Your task to perform on an android device: empty trash in google photos Image 0: 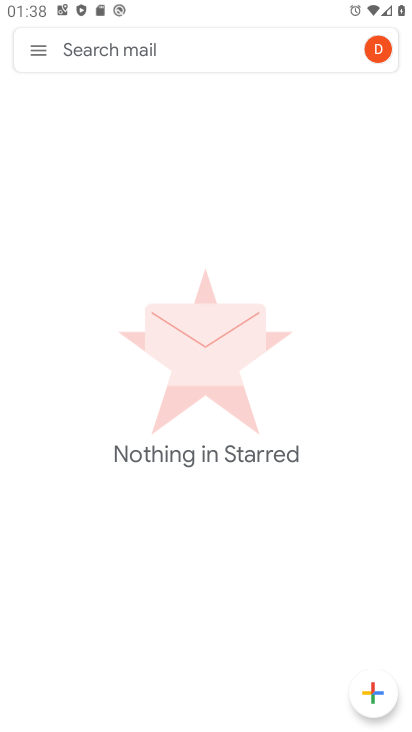
Step 0: press home button
Your task to perform on an android device: empty trash in google photos Image 1: 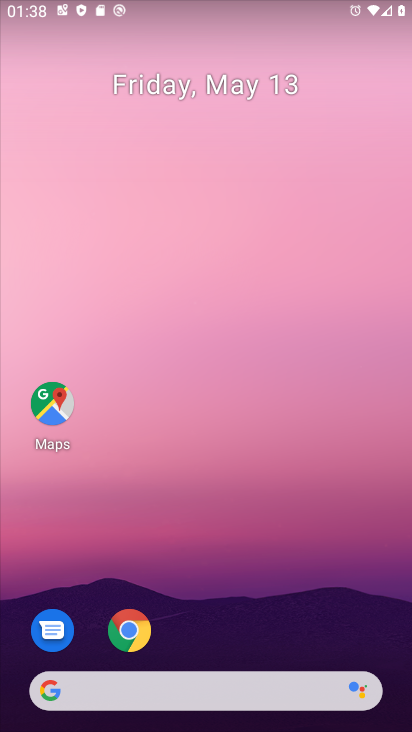
Step 1: drag from (248, 716) to (281, 330)
Your task to perform on an android device: empty trash in google photos Image 2: 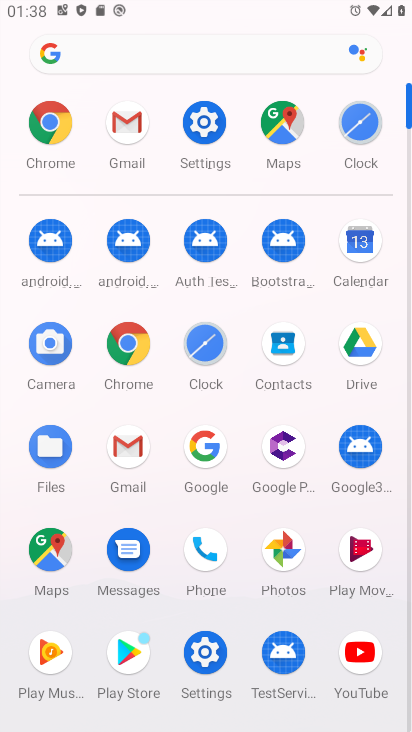
Step 2: click (286, 534)
Your task to perform on an android device: empty trash in google photos Image 3: 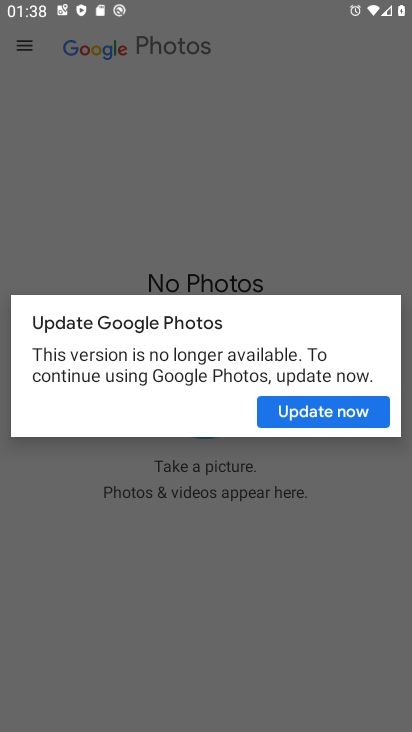
Step 3: click (312, 410)
Your task to perform on an android device: empty trash in google photos Image 4: 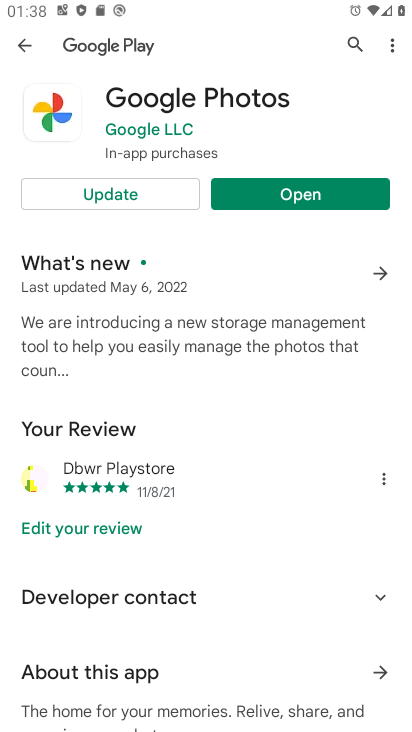
Step 4: click (254, 182)
Your task to perform on an android device: empty trash in google photos Image 5: 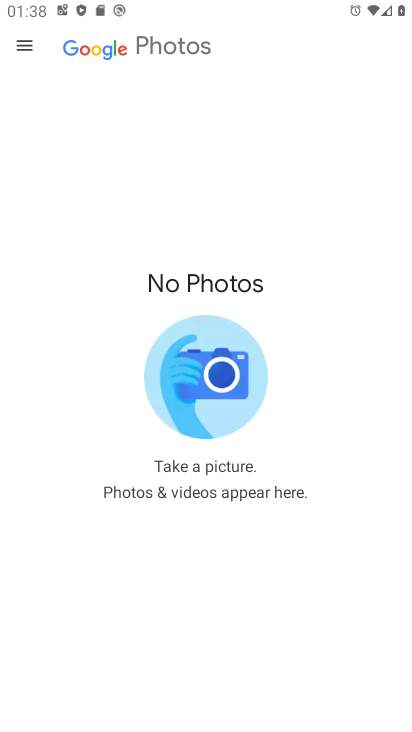
Step 5: click (39, 53)
Your task to perform on an android device: empty trash in google photos Image 6: 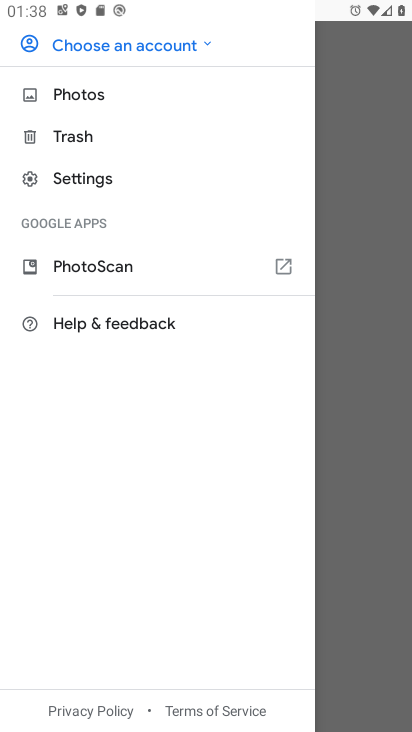
Step 6: click (125, 140)
Your task to perform on an android device: empty trash in google photos Image 7: 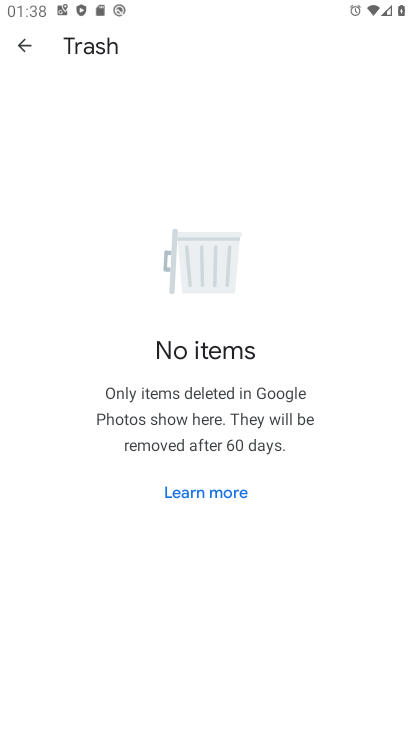
Step 7: task complete